Your task to perform on an android device: What's on my calendar tomorrow? Image 0: 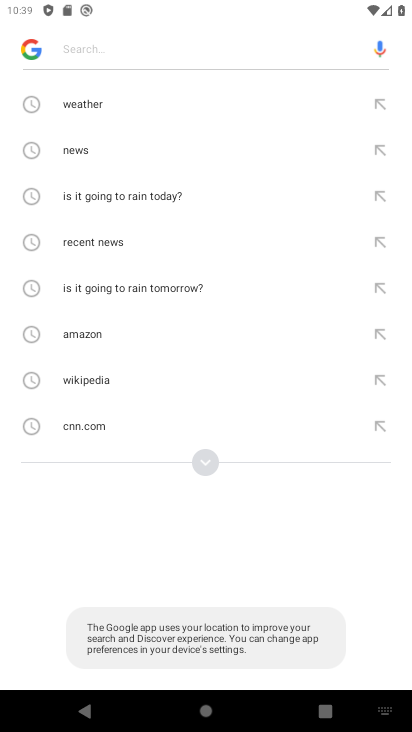
Step 0: press back button
Your task to perform on an android device: What's on my calendar tomorrow? Image 1: 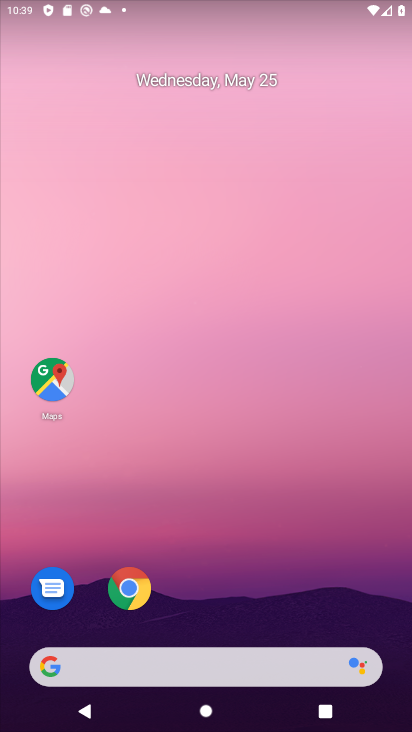
Step 1: drag from (240, 595) to (199, 58)
Your task to perform on an android device: What's on my calendar tomorrow? Image 2: 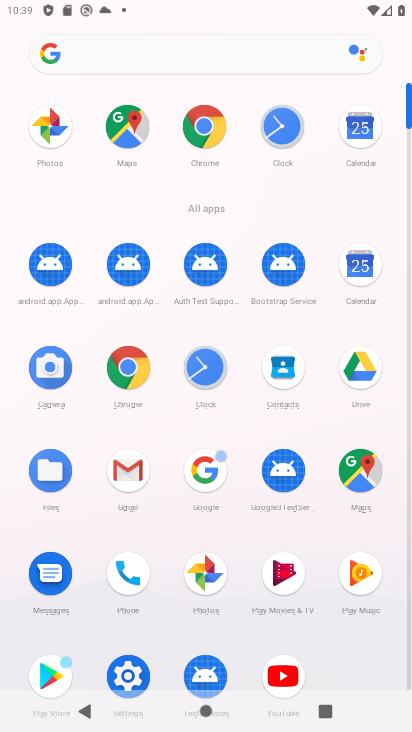
Step 2: click (359, 130)
Your task to perform on an android device: What's on my calendar tomorrow? Image 3: 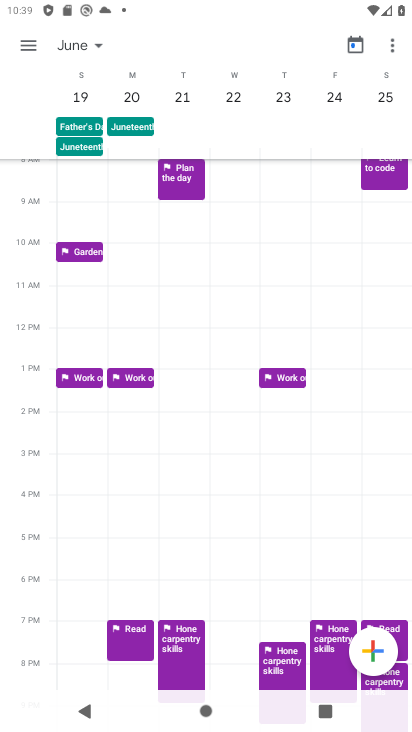
Step 3: click (358, 48)
Your task to perform on an android device: What's on my calendar tomorrow? Image 4: 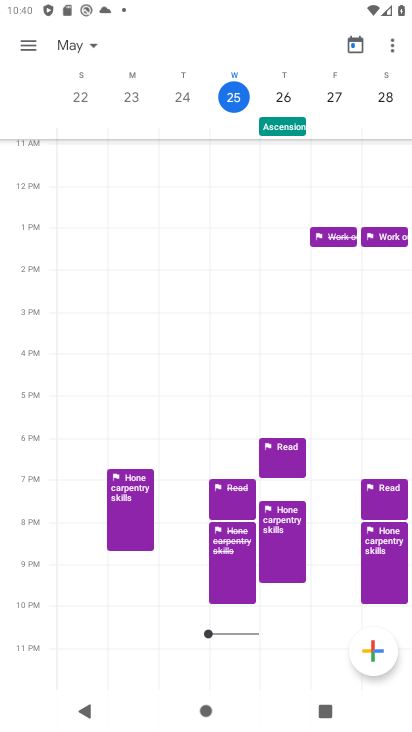
Step 4: click (87, 43)
Your task to perform on an android device: What's on my calendar tomorrow? Image 5: 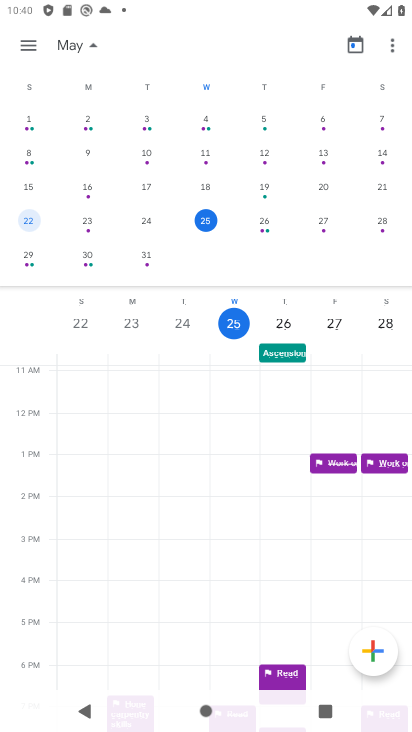
Step 5: click (266, 223)
Your task to perform on an android device: What's on my calendar tomorrow? Image 6: 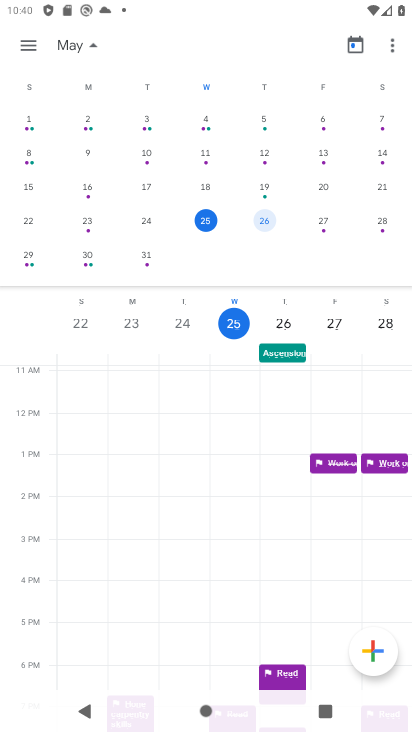
Step 6: click (28, 44)
Your task to perform on an android device: What's on my calendar tomorrow? Image 7: 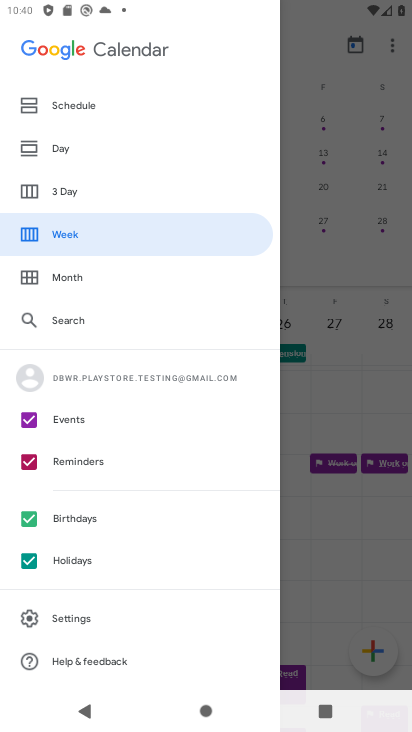
Step 7: click (73, 108)
Your task to perform on an android device: What's on my calendar tomorrow? Image 8: 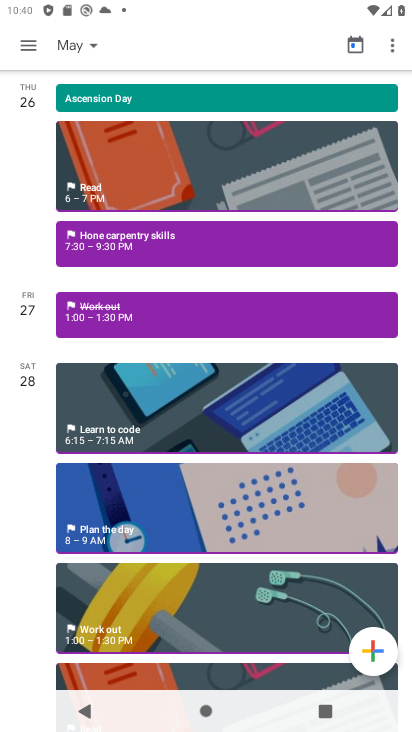
Step 8: task complete